Your task to perform on an android device: change the clock display to show seconds Image 0: 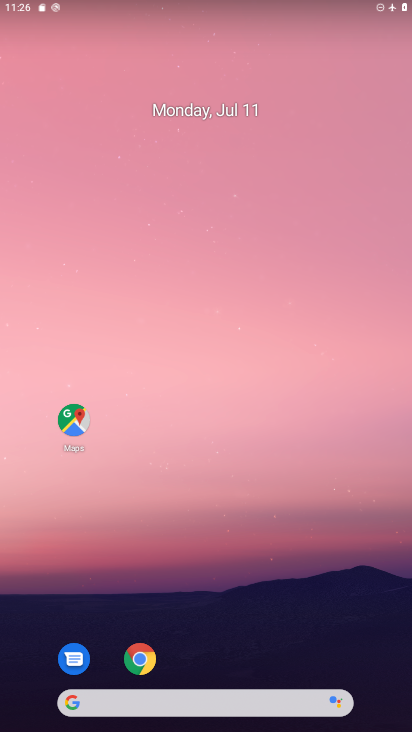
Step 0: drag from (241, 650) to (194, 41)
Your task to perform on an android device: change the clock display to show seconds Image 1: 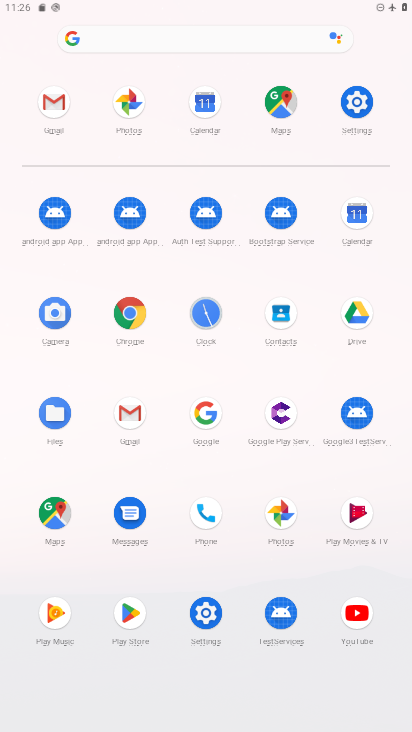
Step 1: click (202, 304)
Your task to perform on an android device: change the clock display to show seconds Image 2: 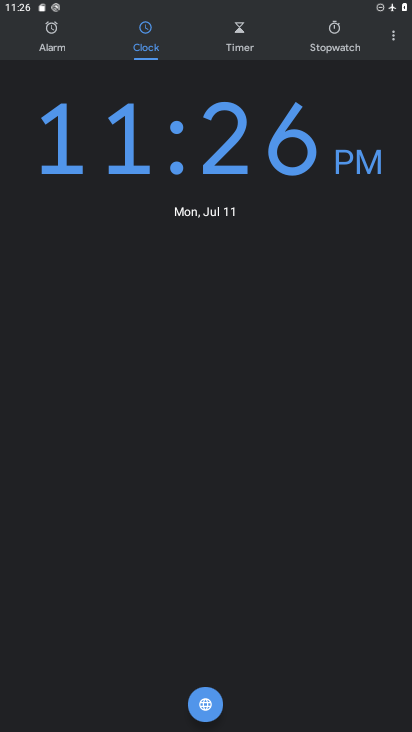
Step 2: click (394, 33)
Your task to perform on an android device: change the clock display to show seconds Image 3: 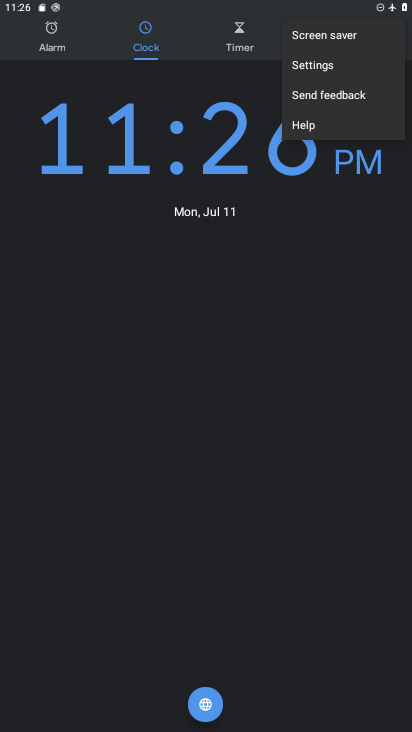
Step 3: drag from (397, 35) to (366, 59)
Your task to perform on an android device: change the clock display to show seconds Image 4: 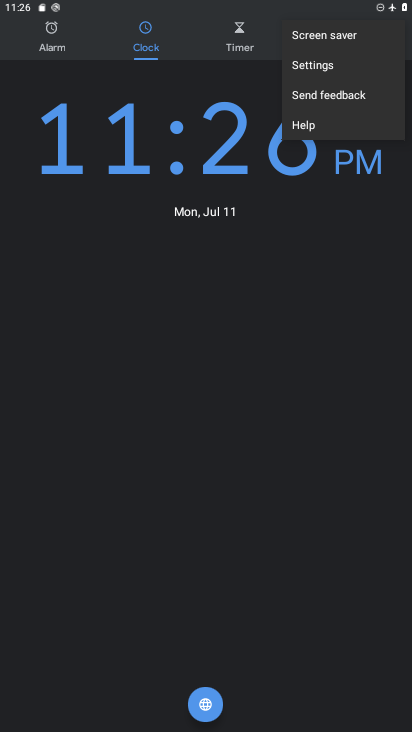
Step 4: click (333, 74)
Your task to perform on an android device: change the clock display to show seconds Image 5: 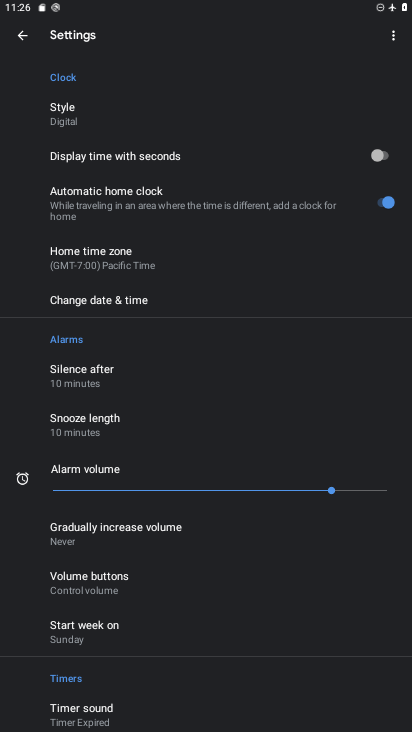
Step 5: click (379, 148)
Your task to perform on an android device: change the clock display to show seconds Image 6: 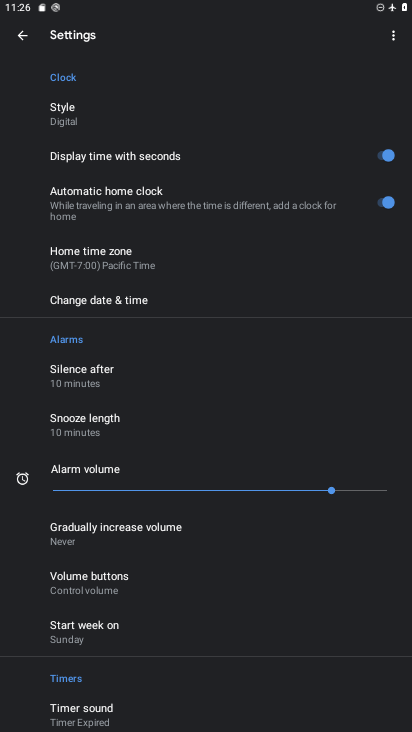
Step 6: task complete